Your task to perform on an android device: Open my contact list Image 0: 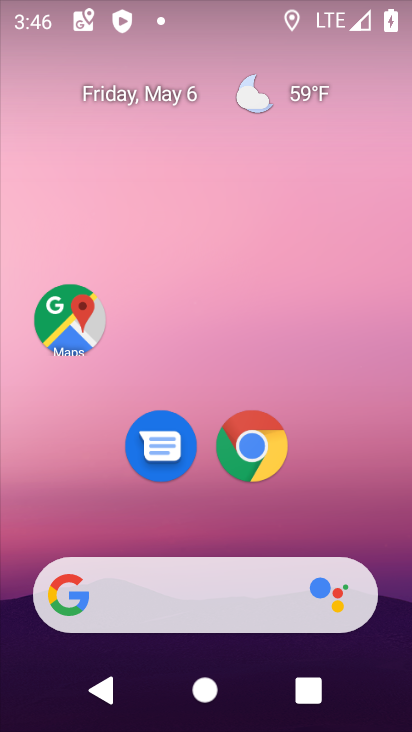
Step 0: drag from (328, 525) to (336, 122)
Your task to perform on an android device: Open my contact list Image 1: 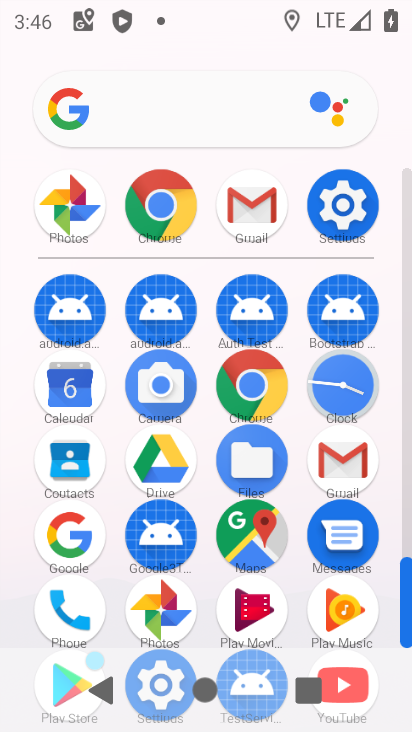
Step 1: click (61, 462)
Your task to perform on an android device: Open my contact list Image 2: 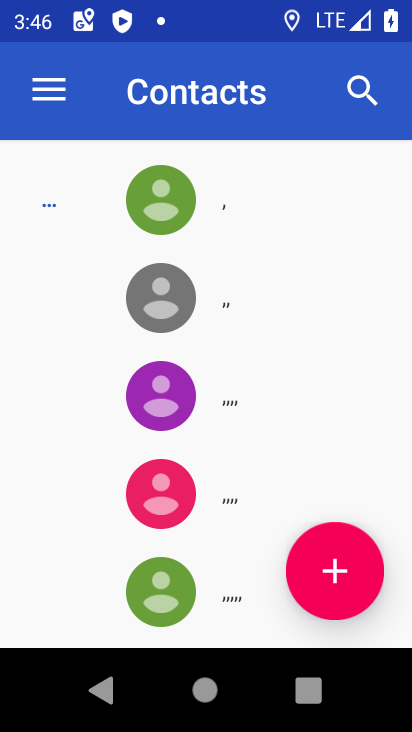
Step 2: click (353, 566)
Your task to perform on an android device: Open my contact list Image 3: 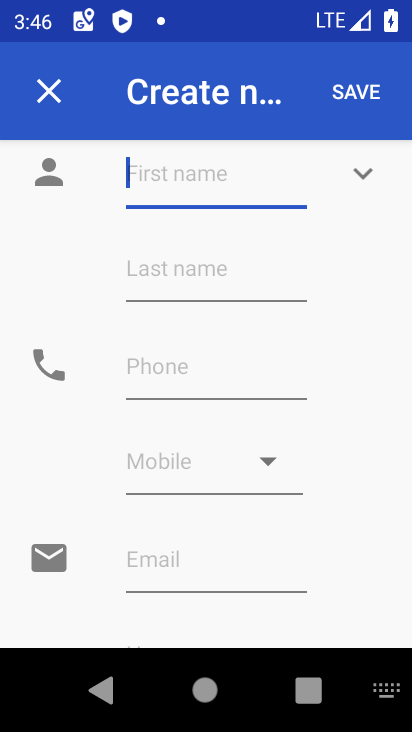
Step 3: click (161, 189)
Your task to perform on an android device: Open my contact list Image 4: 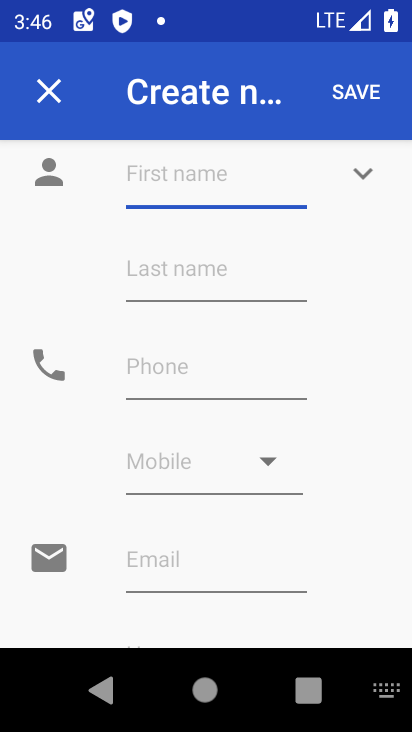
Step 4: type "Rajeshwari"
Your task to perform on an android device: Open my contact list Image 5: 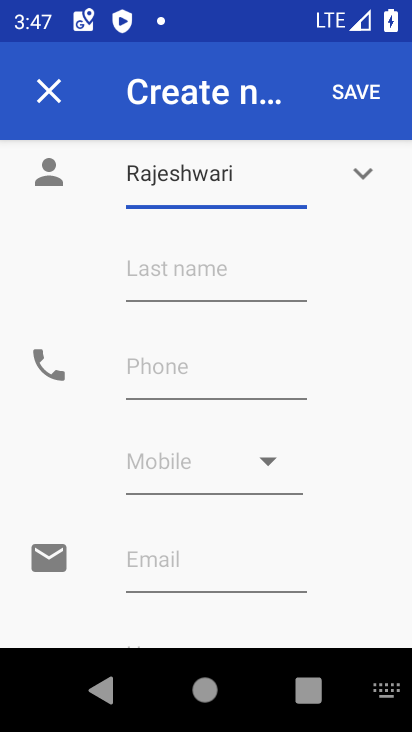
Step 5: click (217, 380)
Your task to perform on an android device: Open my contact list Image 6: 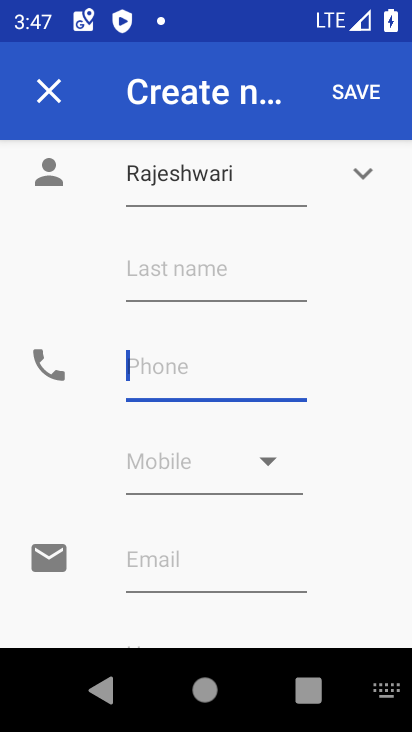
Step 6: type "9854647445"
Your task to perform on an android device: Open my contact list Image 7: 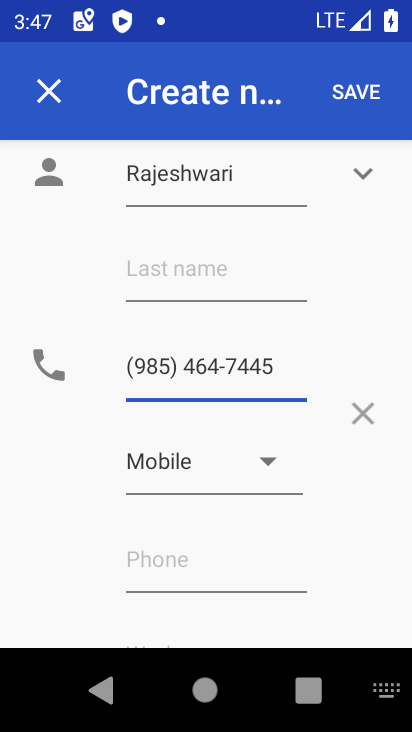
Step 7: click (368, 87)
Your task to perform on an android device: Open my contact list Image 8: 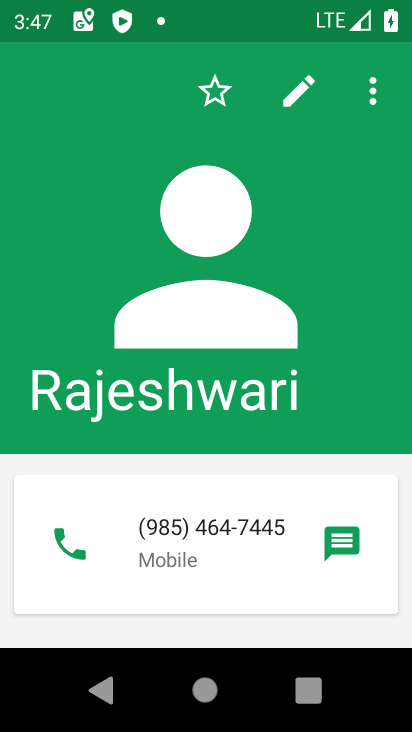
Step 8: task complete